Your task to perform on an android device: Open Youtube and go to the subscriptions tab Image 0: 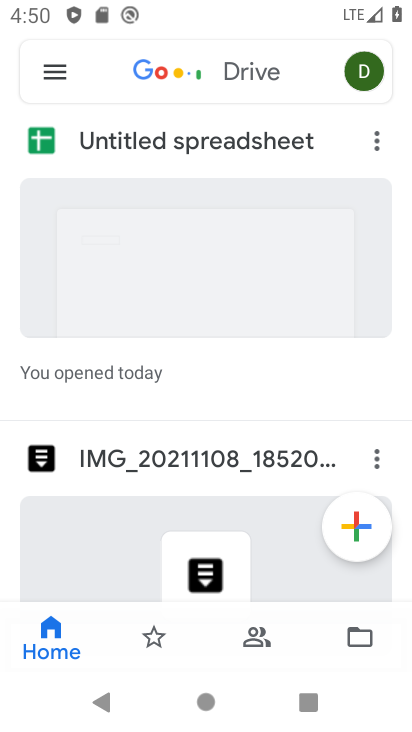
Step 0: press home button
Your task to perform on an android device: Open Youtube and go to the subscriptions tab Image 1: 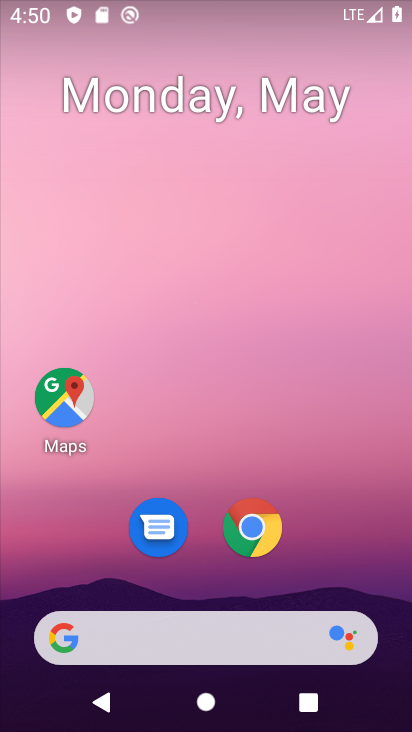
Step 1: drag from (397, 701) to (369, 174)
Your task to perform on an android device: Open Youtube and go to the subscriptions tab Image 2: 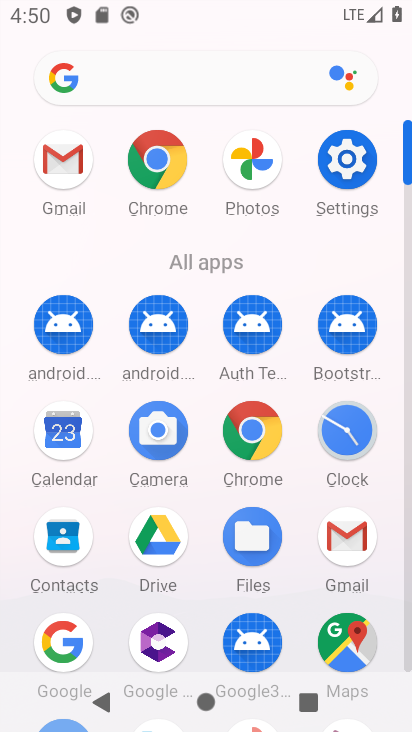
Step 2: drag from (198, 654) to (202, 116)
Your task to perform on an android device: Open Youtube and go to the subscriptions tab Image 3: 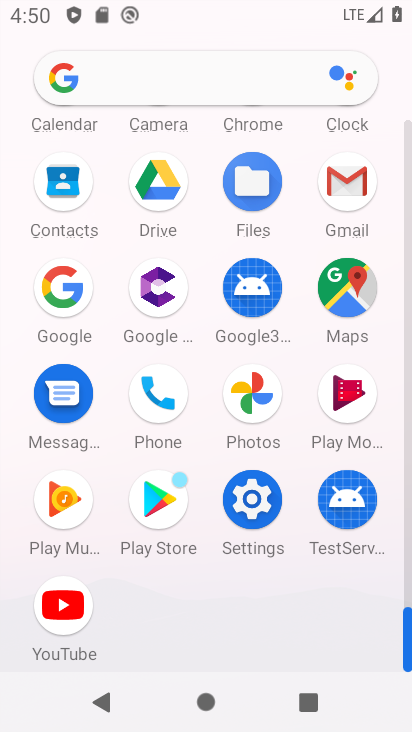
Step 3: click (53, 616)
Your task to perform on an android device: Open Youtube and go to the subscriptions tab Image 4: 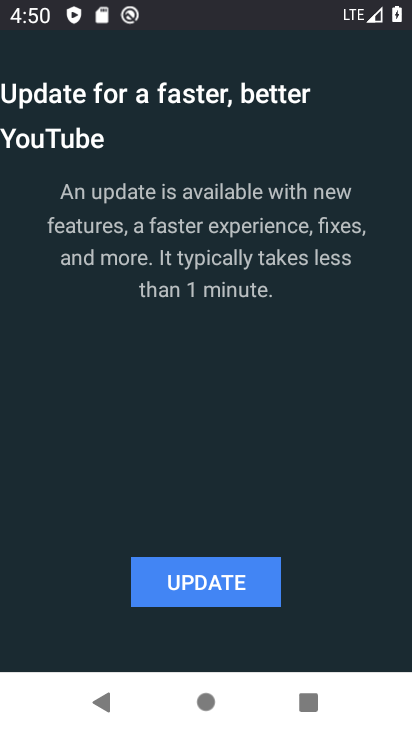
Step 4: click (117, 582)
Your task to perform on an android device: Open Youtube and go to the subscriptions tab Image 5: 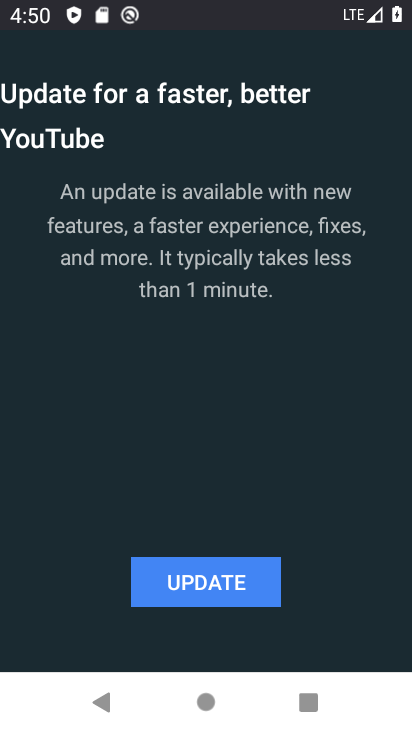
Step 5: click (210, 575)
Your task to perform on an android device: Open Youtube and go to the subscriptions tab Image 6: 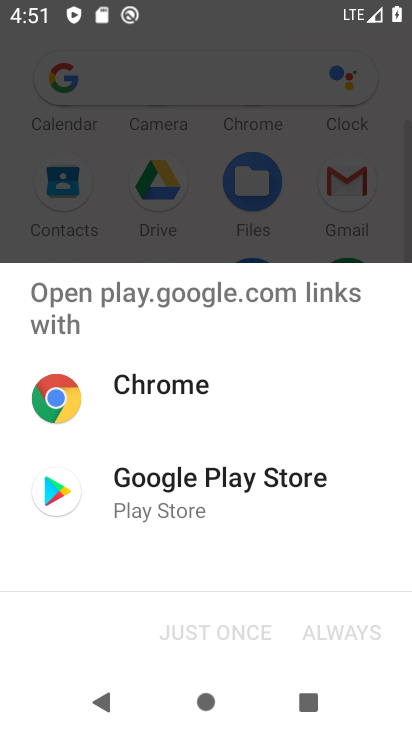
Step 6: click (277, 466)
Your task to perform on an android device: Open Youtube and go to the subscriptions tab Image 7: 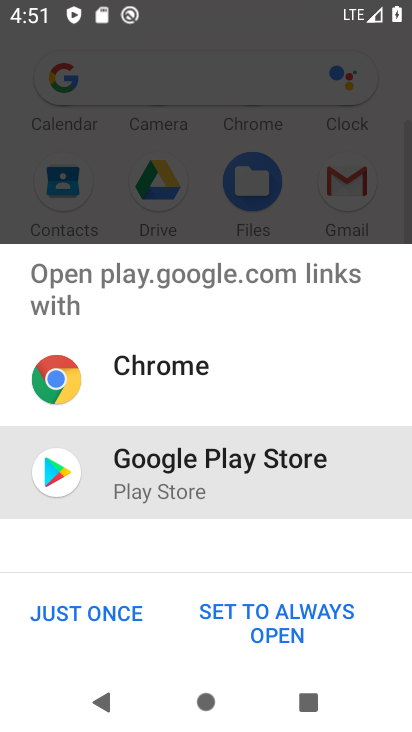
Step 7: click (57, 620)
Your task to perform on an android device: Open Youtube and go to the subscriptions tab Image 8: 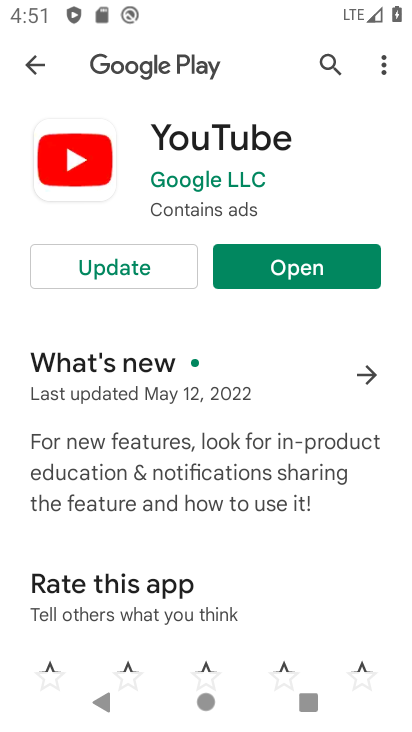
Step 8: click (133, 266)
Your task to perform on an android device: Open Youtube and go to the subscriptions tab Image 9: 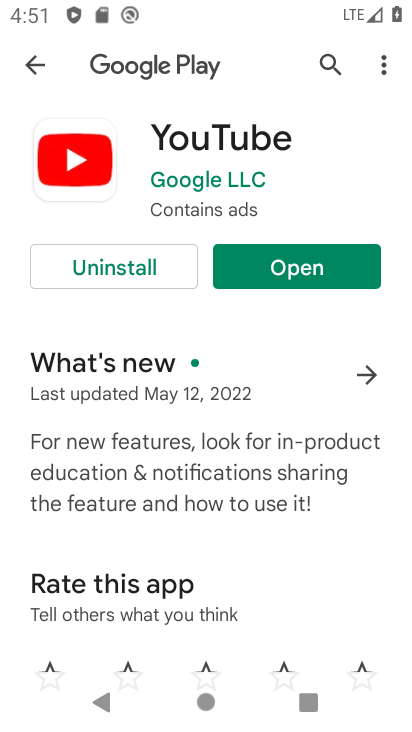
Step 9: click (302, 269)
Your task to perform on an android device: Open Youtube and go to the subscriptions tab Image 10: 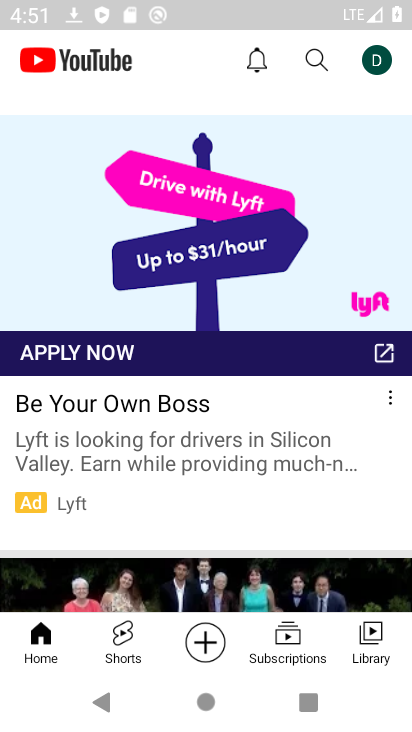
Step 10: click (289, 639)
Your task to perform on an android device: Open Youtube and go to the subscriptions tab Image 11: 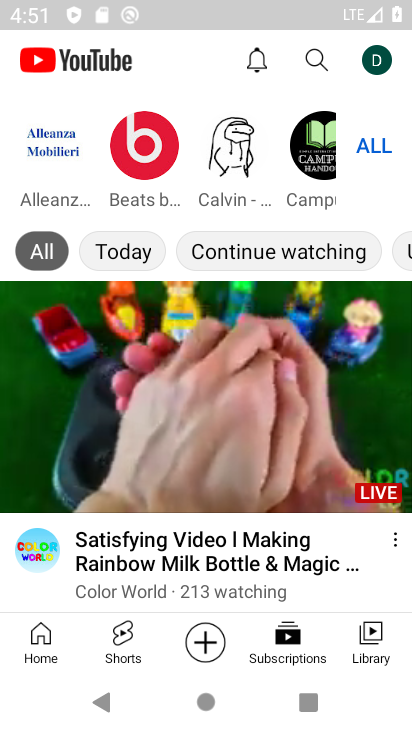
Step 11: task complete